Your task to perform on an android device: Open wifi settings Image 0: 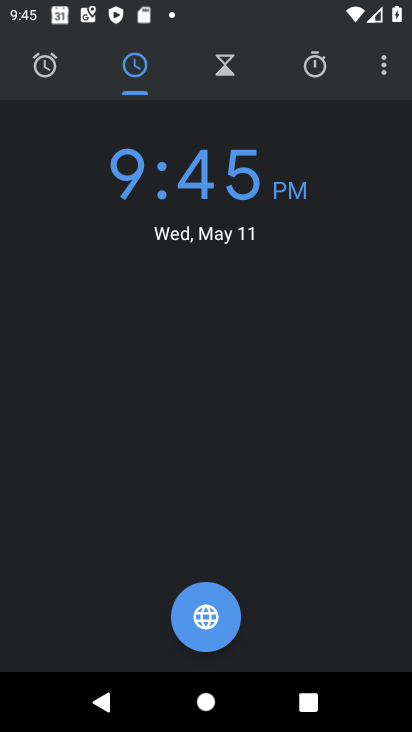
Step 0: press home button
Your task to perform on an android device: Open wifi settings Image 1: 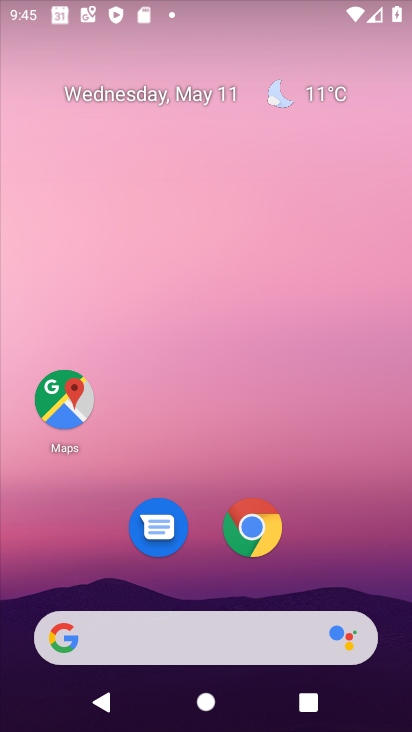
Step 1: drag from (324, 508) to (337, 0)
Your task to perform on an android device: Open wifi settings Image 2: 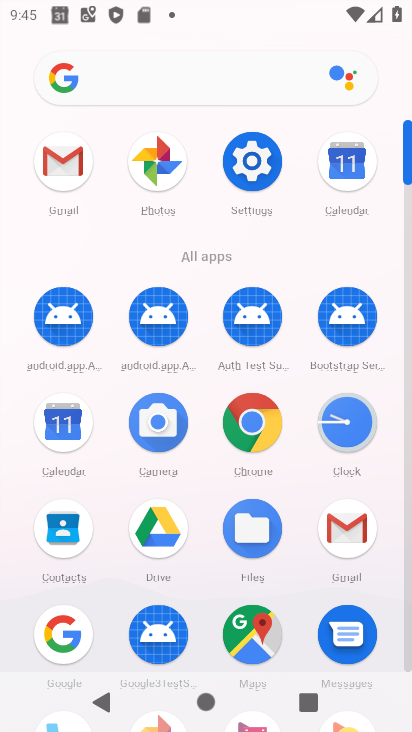
Step 2: click (261, 174)
Your task to perform on an android device: Open wifi settings Image 3: 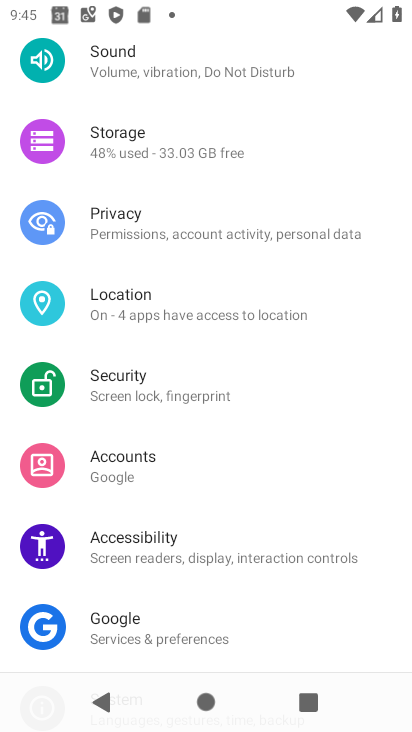
Step 3: drag from (258, 189) to (292, 600)
Your task to perform on an android device: Open wifi settings Image 4: 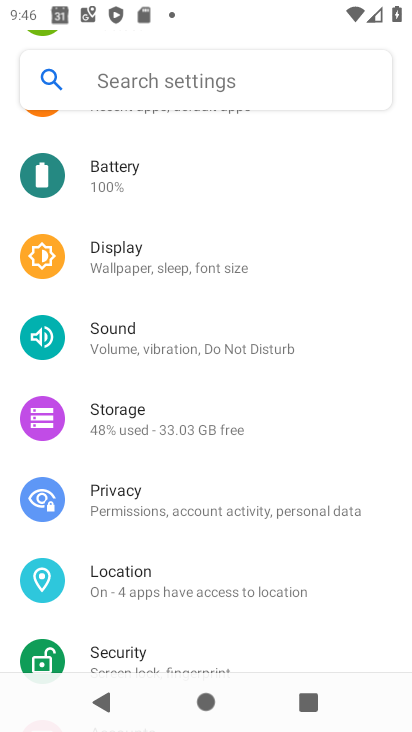
Step 4: drag from (234, 171) to (244, 556)
Your task to perform on an android device: Open wifi settings Image 5: 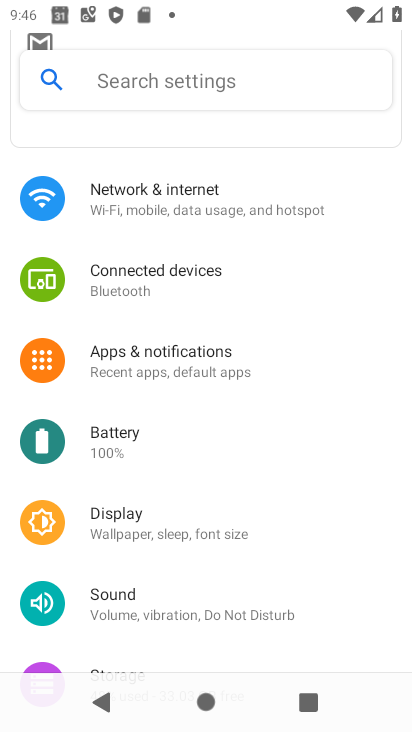
Step 5: click (202, 197)
Your task to perform on an android device: Open wifi settings Image 6: 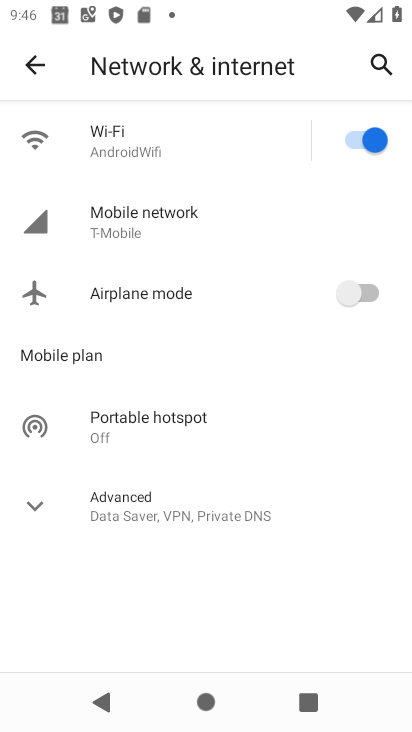
Step 6: click (152, 160)
Your task to perform on an android device: Open wifi settings Image 7: 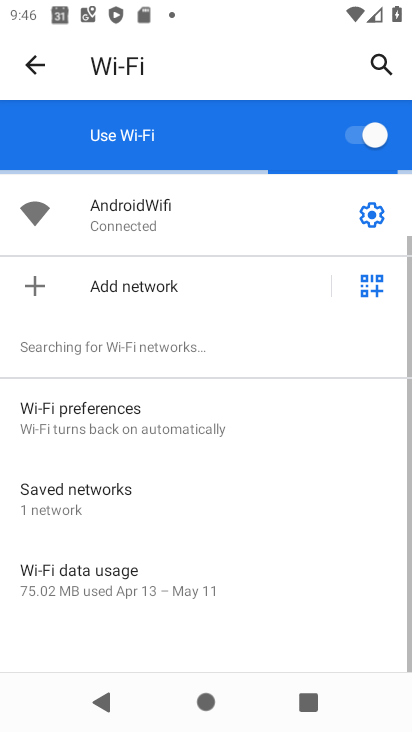
Step 7: task complete